Your task to perform on an android device: add a label to a message in the gmail app Image 0: 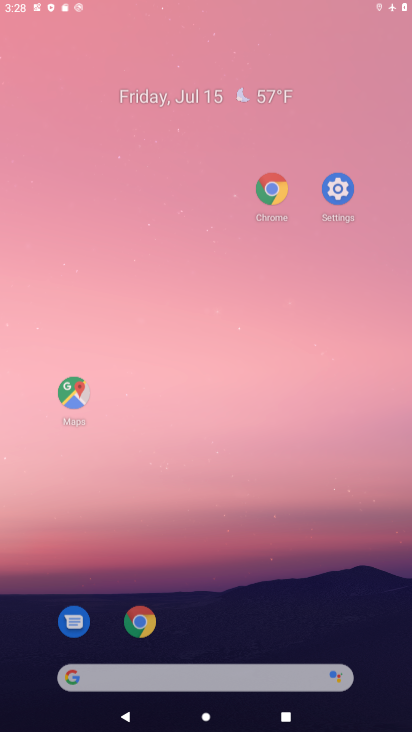
Step 0: click (188, 76)
Your task to perform on an android device: add a label to a message in the gmail app Image 1: 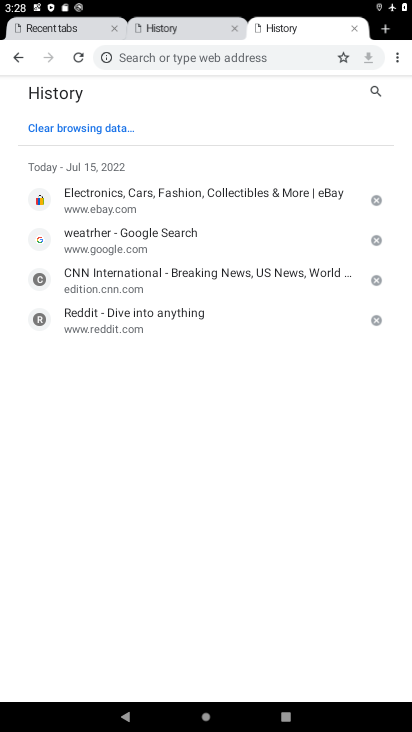
Step 1: click (14, 53)
Your task to perform on an android device: add a label to a message in the gmail app Image 2: 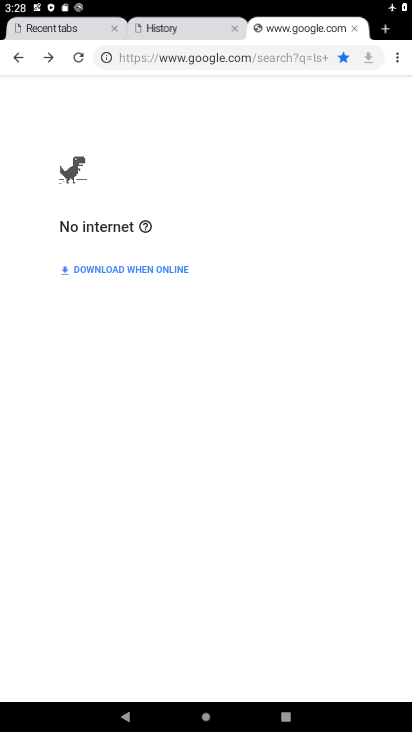
Step 2: press back button
Your task to perform on an android device: add a label to a message in the gmail app Image 3: 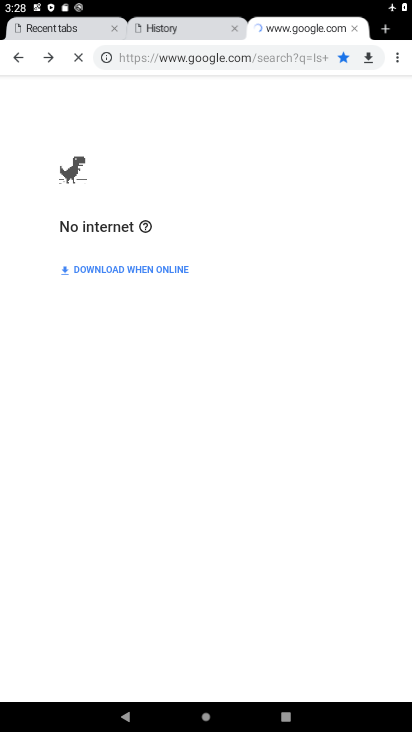
Step 3: press back button
Your task to perform on an android device: add a label to a message in the gmail app Image 4: 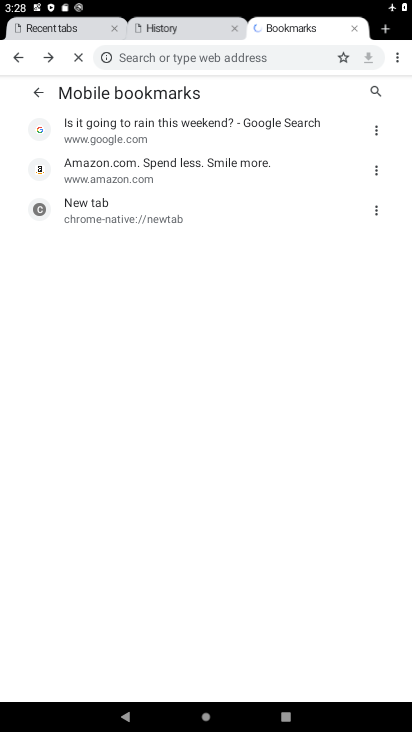
Step 4: press back button
Your task to perform on an android device: add a label to a message in the gmail app Image 5: 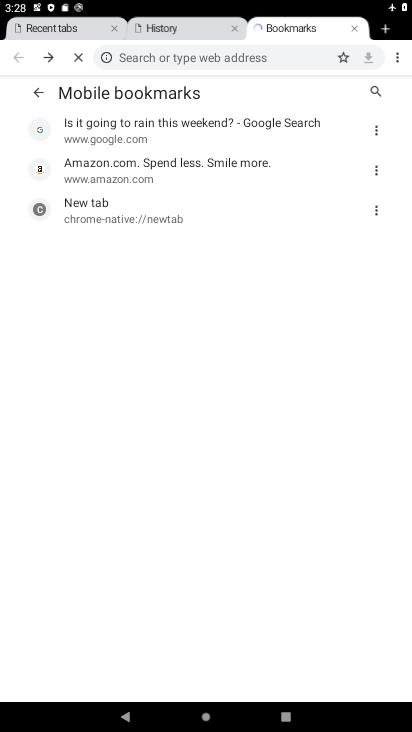
Step 5: press home button
Your task to perform on an android device: add a label to a message in the gmail app Image 6: 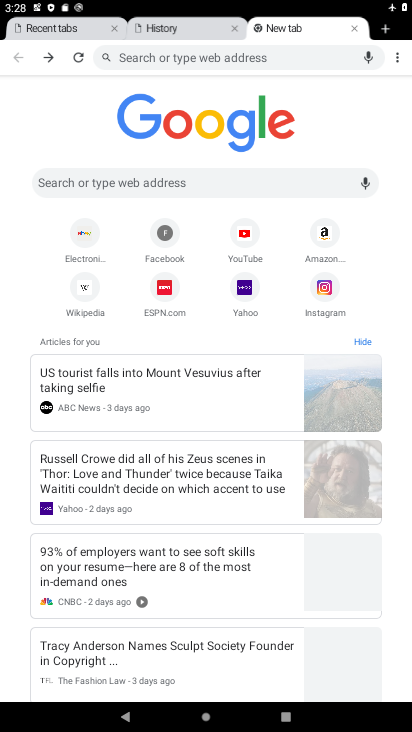
Step 6: press home button
Your task to perform on an android device: add a label to a message in the gmail app Image 7: 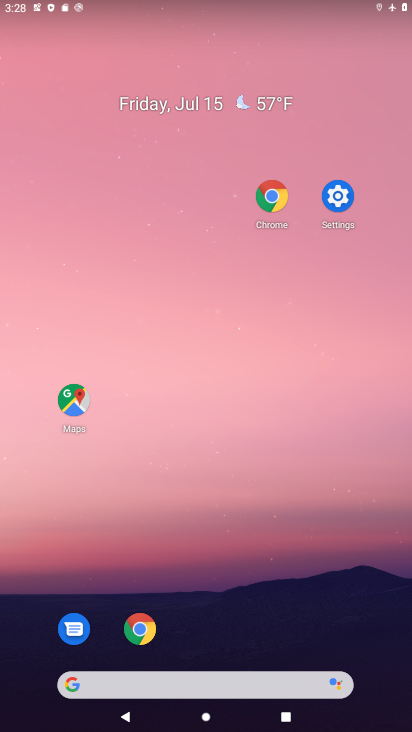
Step 7: press home button
Your task to perform on an android device: add a label to a message in the gmail app Image 8: 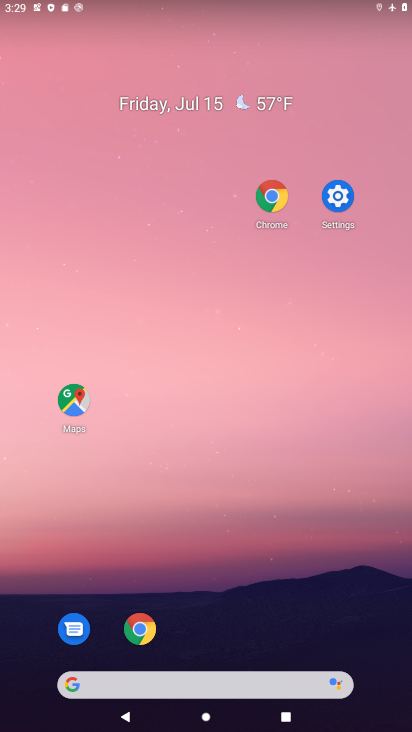
Step 8: drag from (251, 604) to (251, 361)
Your task to perform on an android device: add a label to a message in the gmail app Image 9: 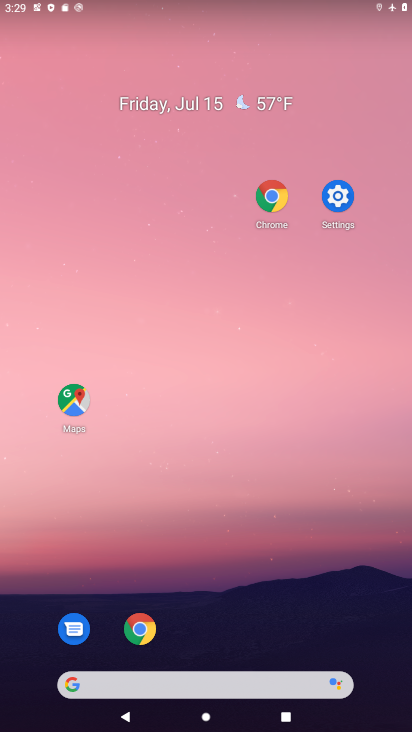
Step 9: drag from (257, 536) to (253, 163)
Your task to perform on an android device: add a label to a message in the gmail app Image 10: 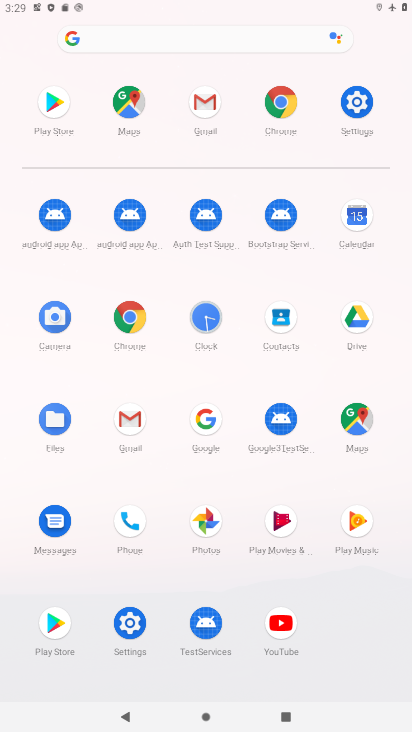
Step 10: click (129, 430)
Your task to perform on an android device: add a label to a message in the gmail app Image 11: 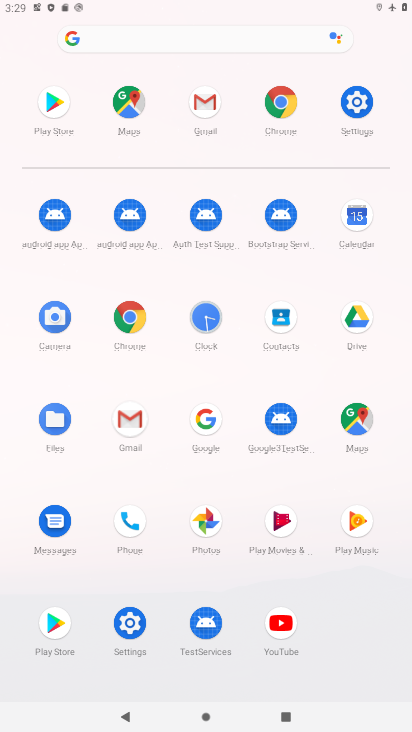
Step 11: click (133, 423)
Your task to perform on an android device: add a label to a message in the gmail app Image 12: 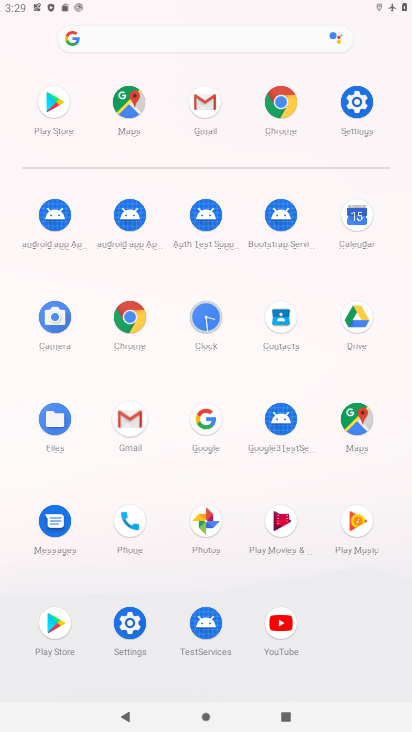
Step 12: click (135, 423)
Your task to perform on an android device: add a label to a message in the gmail app Image 13: 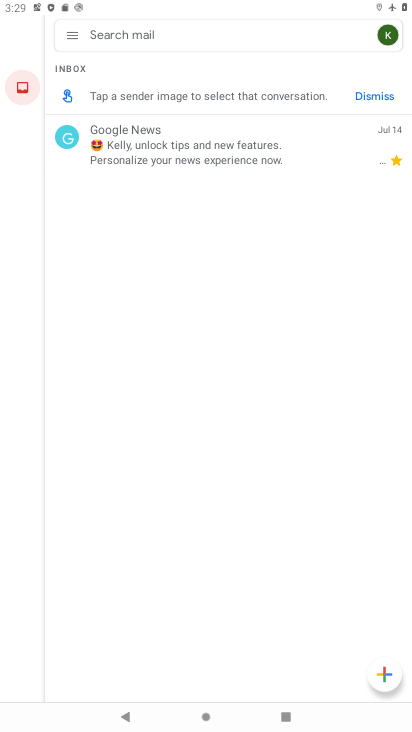
Step 13: click (168, 149)
Your task to perform on an android device: add a label to a message in the gmail app Image 14: 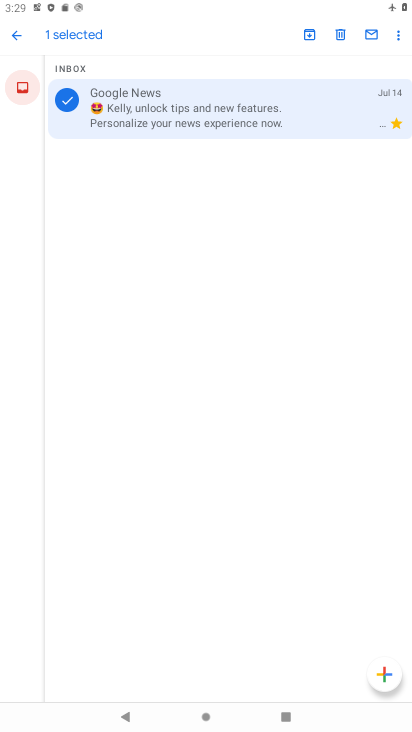
Step 14: click (396, 38)
Your task to perform on an android device: add a label to a message in the gmail app Image 15: 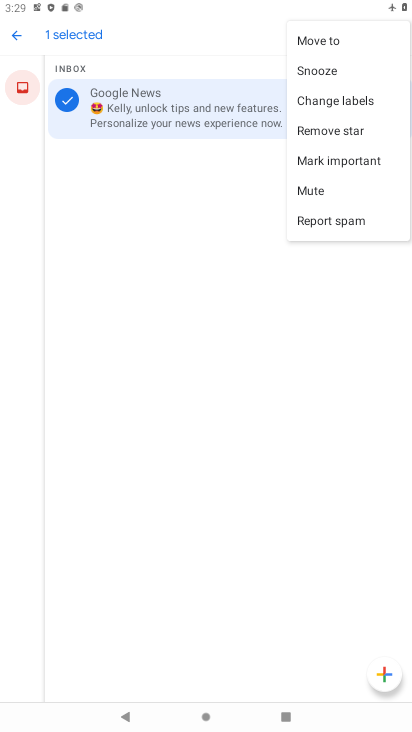
Step 15: click (341, 106)
Your task to perform on an android device: add a label to a message in the gmail app Image 16: 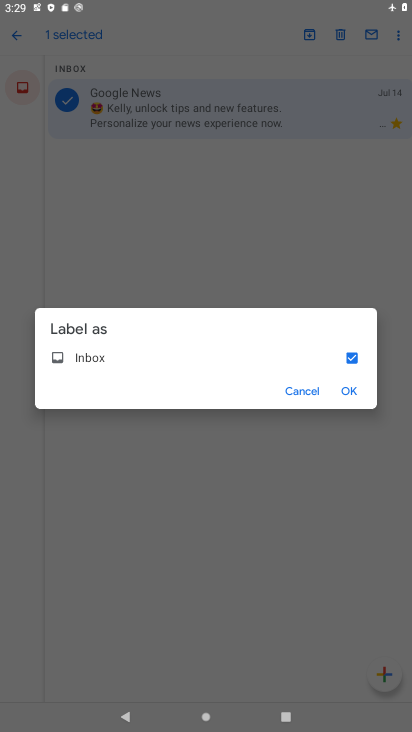
Step 16: click (344, 386)
Your task to perform on an android device: add a label to a message in the gmail app Image 17: 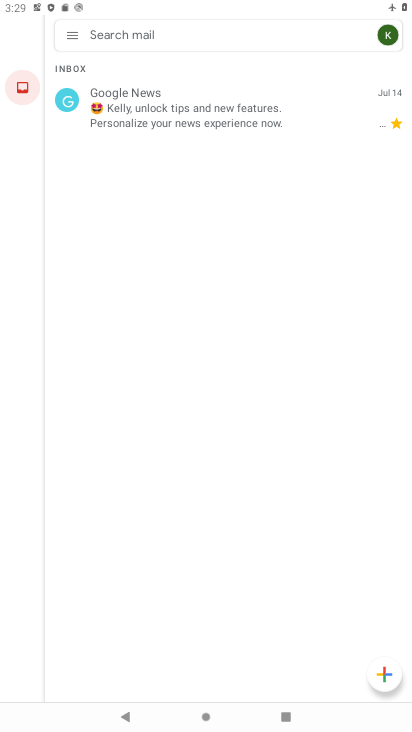
Step 17: task complete